Your task to perform on an android device: all mails in gmail Image 0: 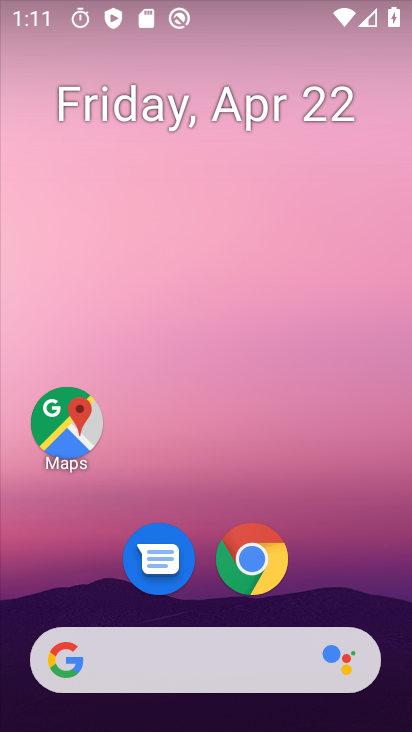
Step 0: drag from (369, 586) to (355, 147)
Your task to perform on an android device: all mails in gmail Image 1: 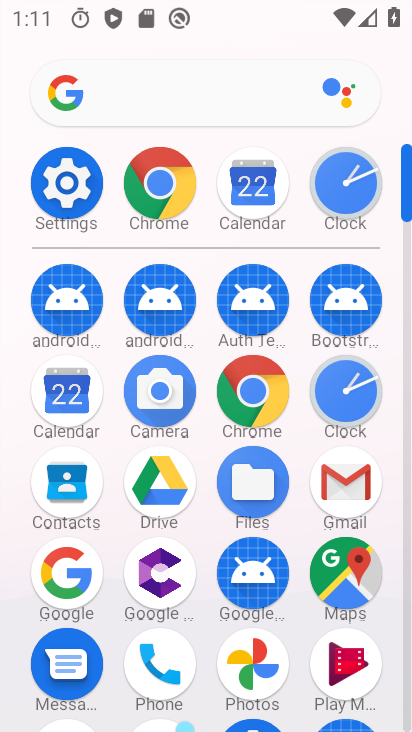
Step 1: click (355, 472)
Your task to perform on an android device: all mails in gmail Image 2: 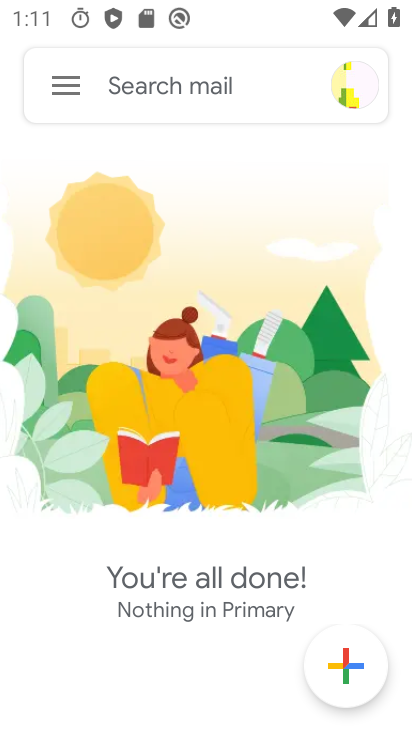
Step 2: click (60, 78)
Your task to perform on an android device: all mails in gmail Image 3: 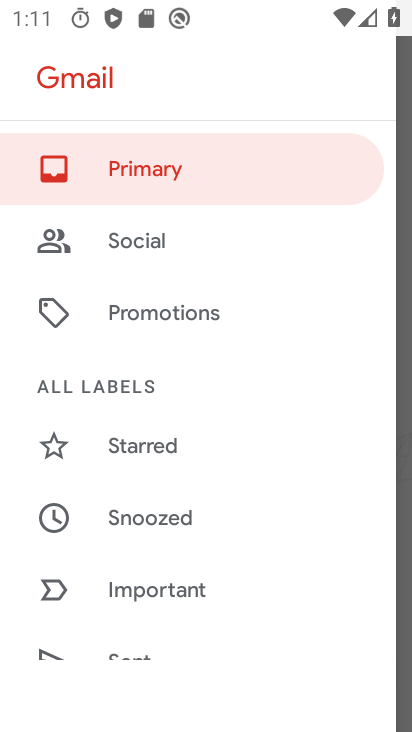
Step 3: drag from (299, 556) to (298, 434)
Your task to perform on an android device: all mails in gmail Image 4: 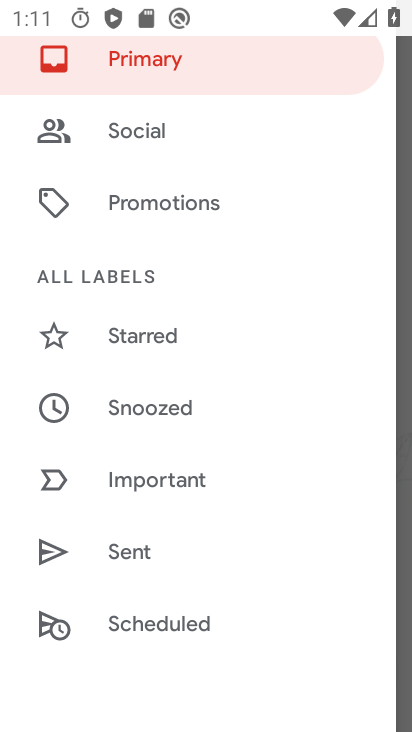
Step 4: drag from (303, 550) to (307, 389)
Your task to perform on an android device: all mails in gmail Image 5: 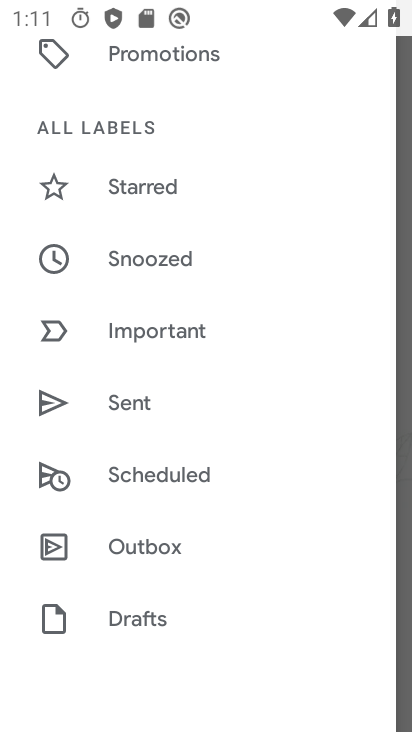
Step 5: drag from (310, 580) to (313, 445)
Your task to perform on an android device: all mails in gmail Image 6: 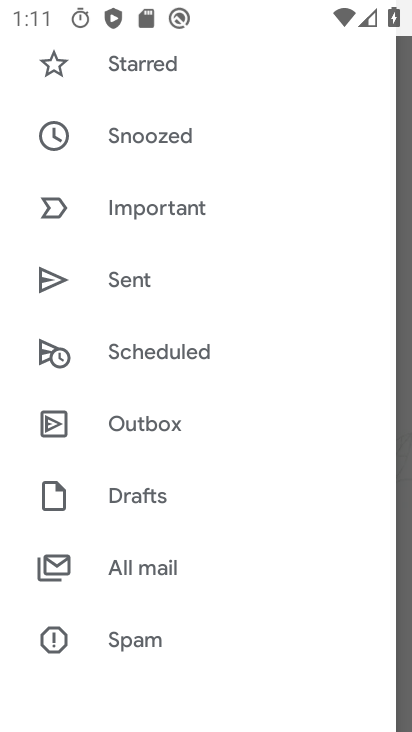
Step 6: drag from (300, 598) to (297, 457)
Your task to perform on an android device: all mails in gmail Image 7: 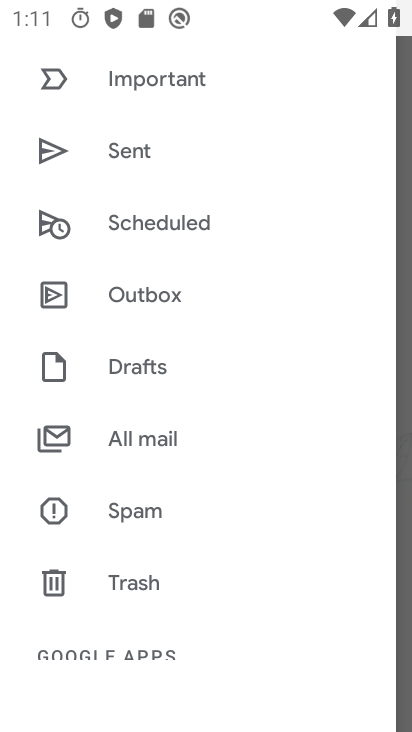
Step 7: click (182, 438)
Your task to perform on an android device: all mails in gmail Image 8: 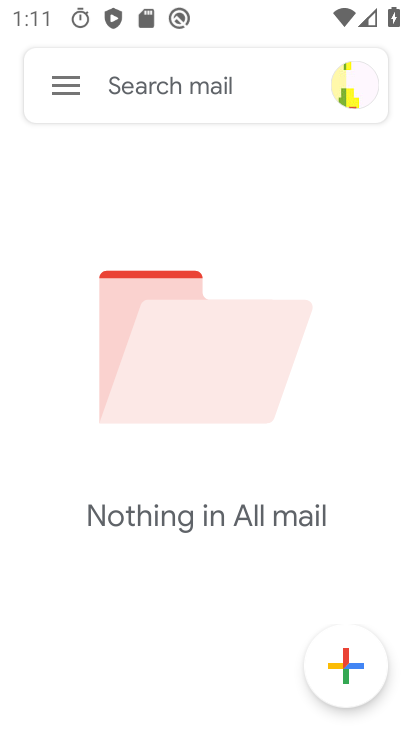
Step 8: task complete